Your task to perform on an android device: add a label to a message in the gmail app Image 0: 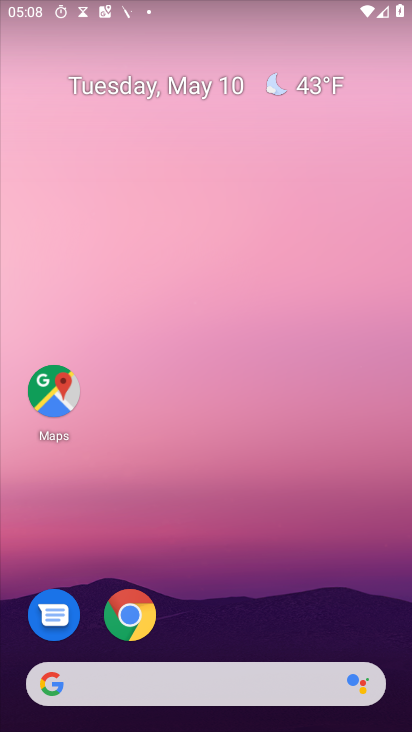
Step 0: drag from (320, 653) to (401, 367)
Your task to perform on an android device: add a label to a message in the gmail app Image 1: 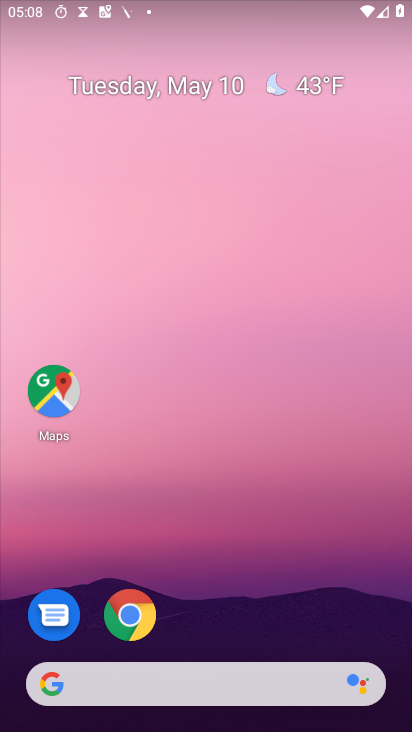
Step 1: click (142, 435)
Your task to perform on an android device: add a label to a message in the gmail app Image 2: 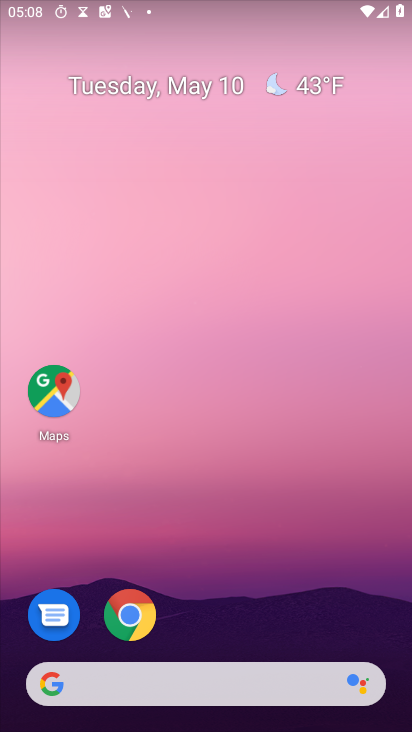
Step 2: drag from (278, 657) to (393, 346)
Your task to perform on an android device: add a label to a message in the gmail app Image 3: 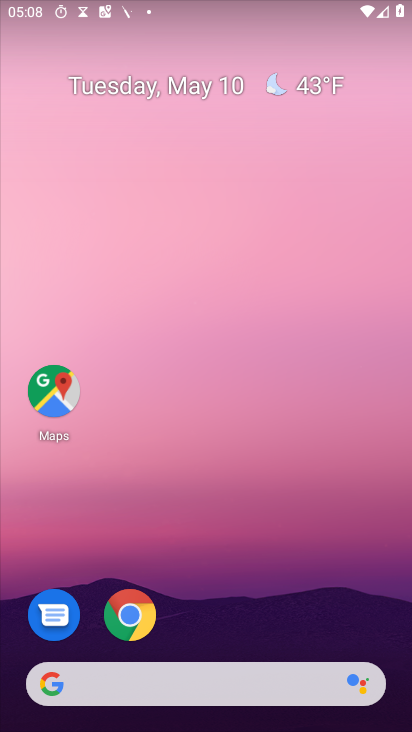
Step 3: drag from (253, 565) to (334, 7)
Your task to perform on an android device: add a label to a message in the gmail app Image 4: 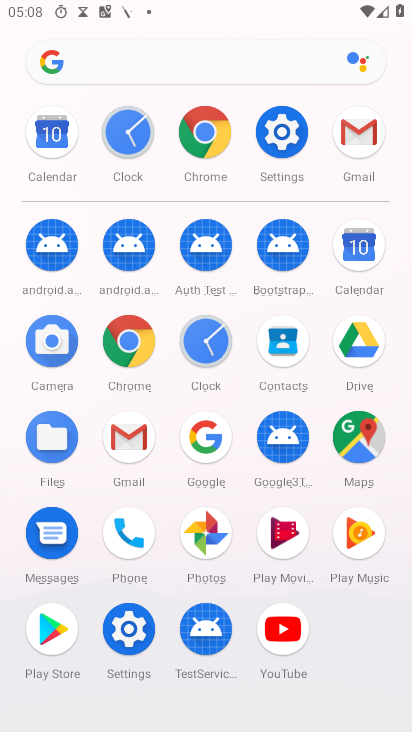
Step 4: click (120, 451)
Your task to perform on an android device: add a label to a message in the gmail app Image 5: 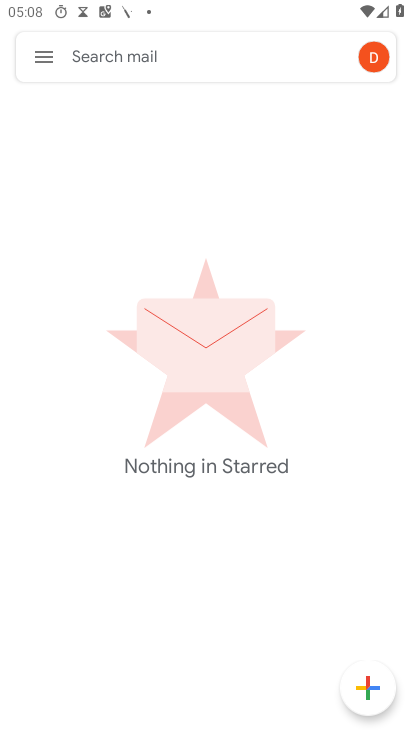
Step 5: click (37, 57)
Your task to perform on an android device: add a label to a message in the gmail app Image 6: 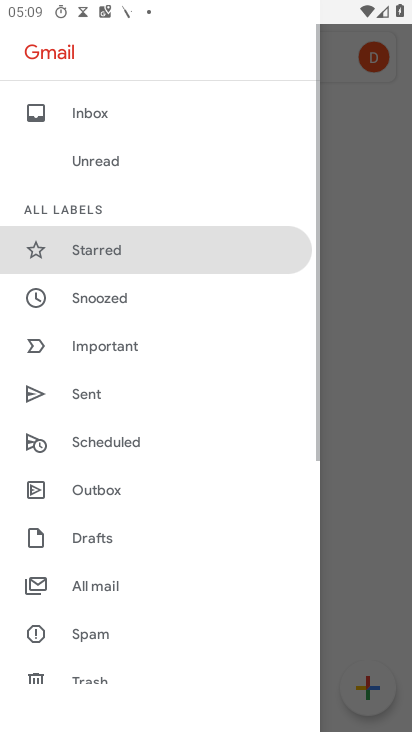
Step 6: click (100, 123)
Your task to perform on an android device: add a label to a message in the gmail app Image 7: 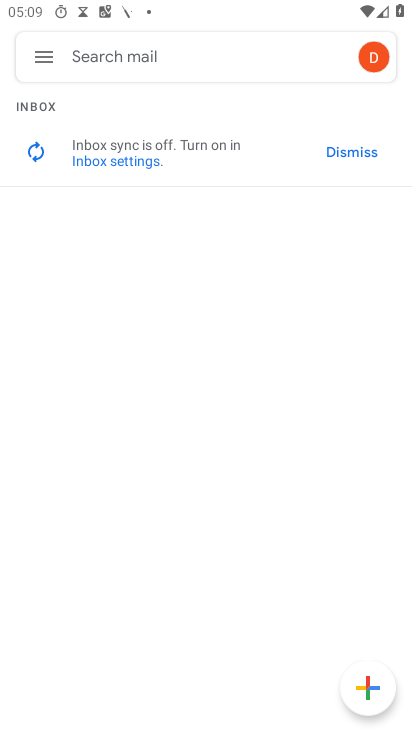
Step 7: task complete